Your task to perform on an android device: Open sound settings Image 0: 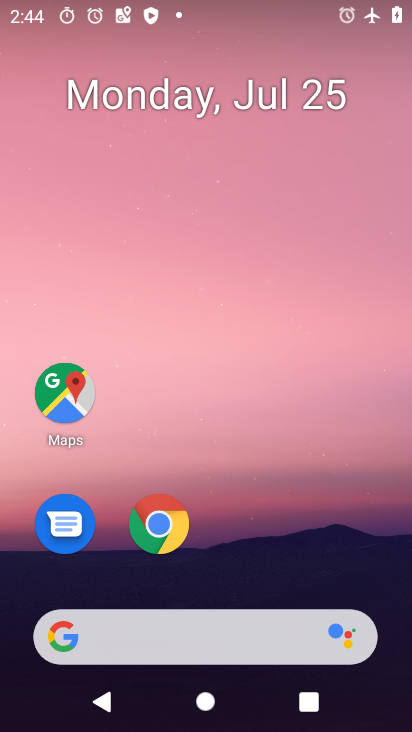
Step 0: press home button
Your task to perform on an android device: Open sound settings Image 1: 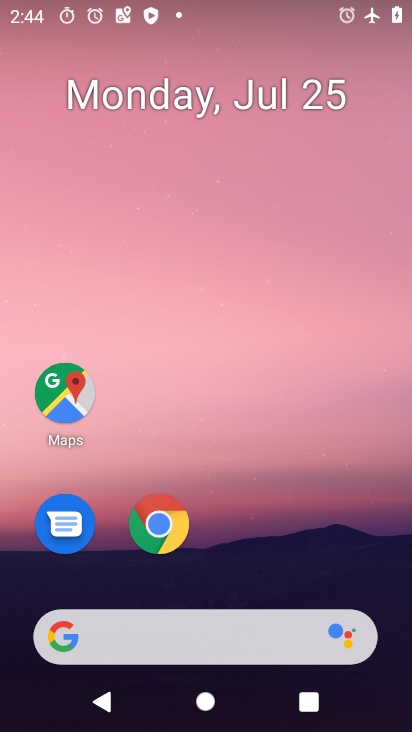
Step 1: drag from (245, 593) to (286, 20)
Your task to perform on an android device: Open sound settings Image 2: 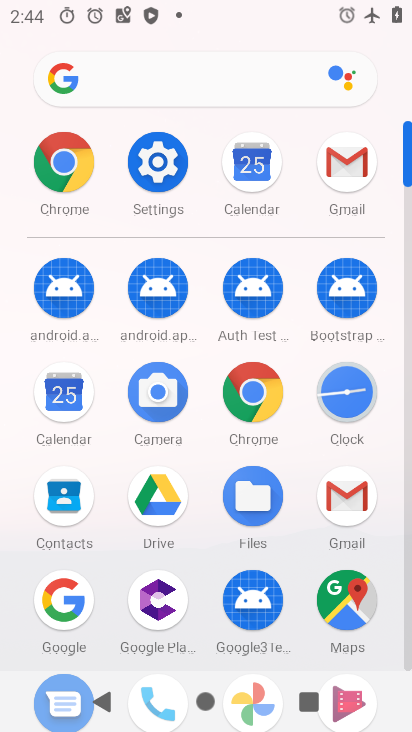
Step 2: click (158, 169)
Your task to perform on an android device: Open sound settings Image 3: 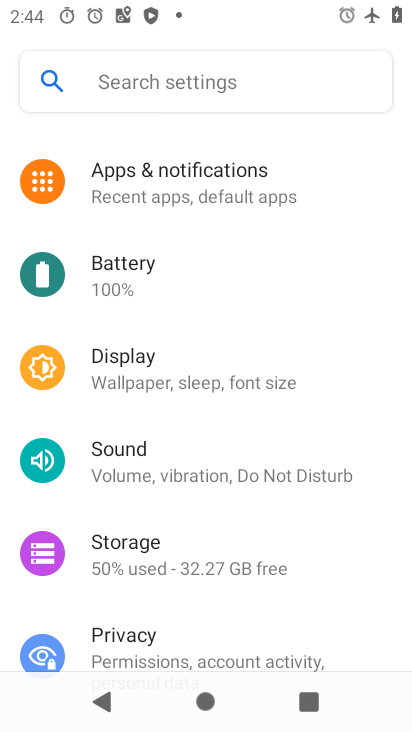
Step 3: click (143, 471)
Your task to perform on an android device: Open sound settings Image 4: 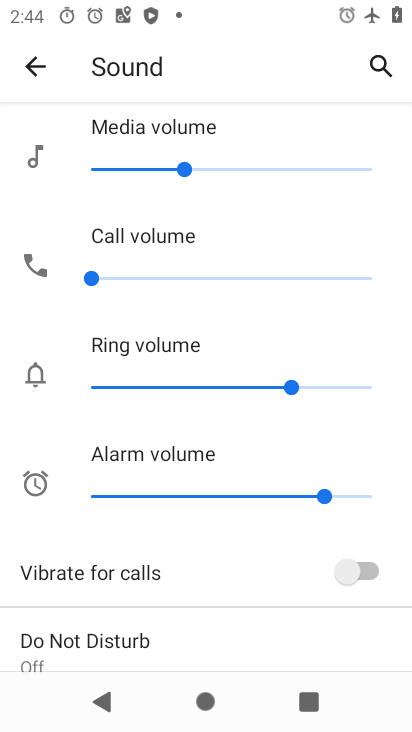
Step 4: task complete